Your task to perform on an android device: Go to location settings Image 0: 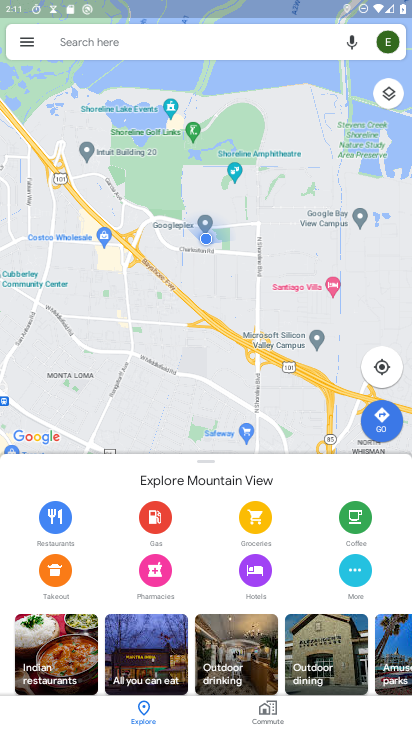
Step 0: press home button
Your task to perform on an android device: Go to location settings Image 1: 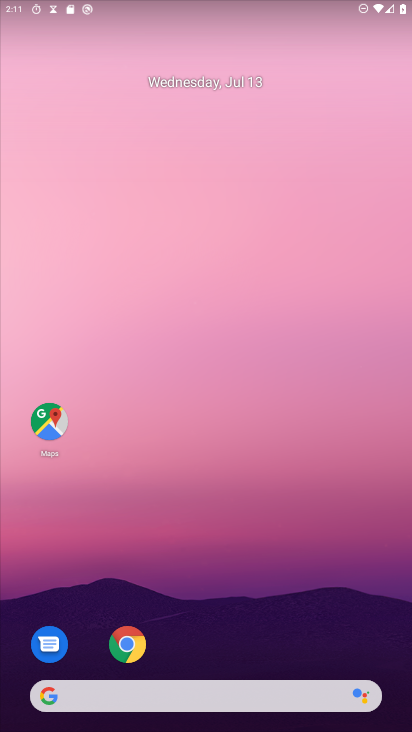
Step 1: drag from (200, 522) to (197, 124)
Your task to perform on an android device: Go to location settings Image 2: 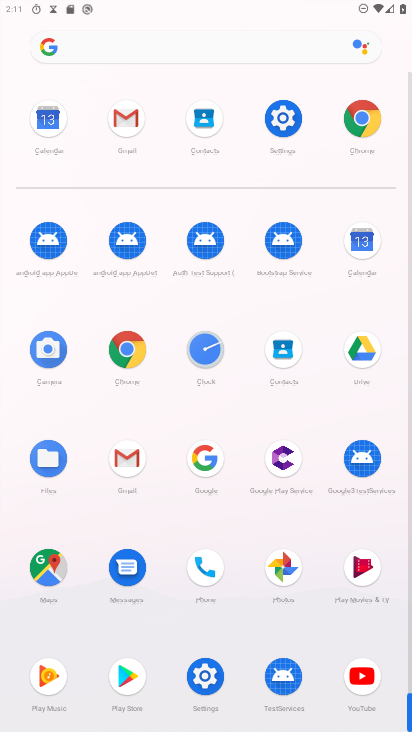
Step 2: click (294, 108)
Your task to perform on an android device: Go to location settings Image 3: 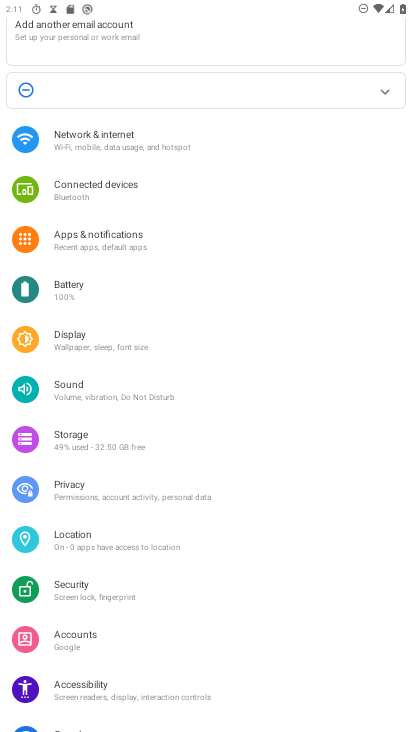
Step 3: click (93, 528)
Your task to perform on an android device: Go to location settings Image 4: 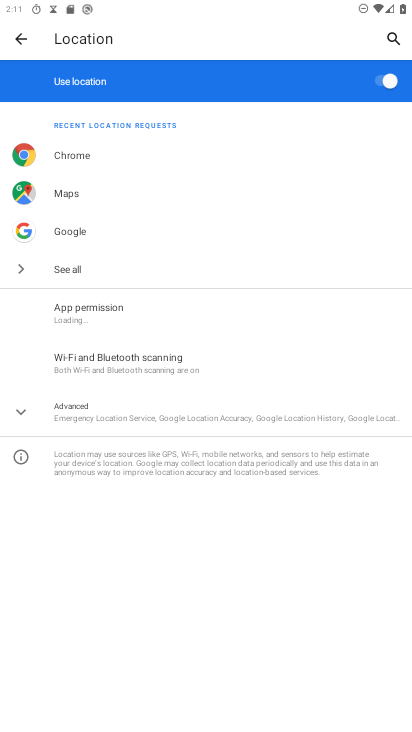
Step 4: task complete